Your task to perform on an android device: What is the recent news? Image 0: 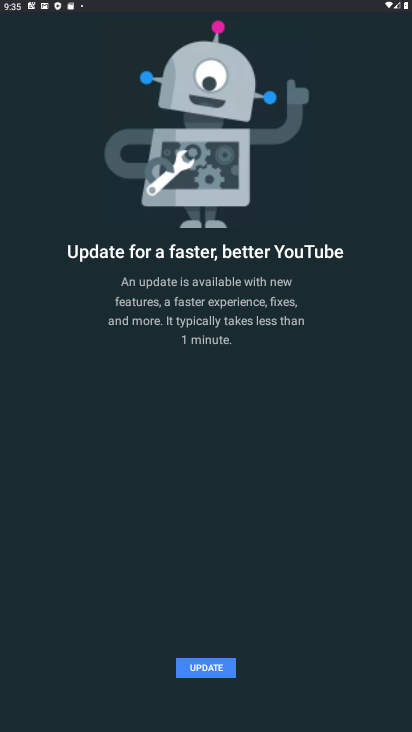
Step 0: press home button
Your task to perform on an android device: What is the recent news? Image 1: 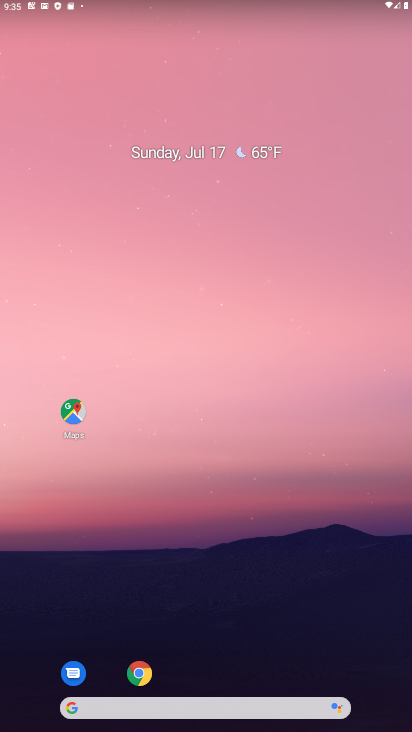
Step 1: task complete